Your task to perform on an android device: set the timer Image 0: 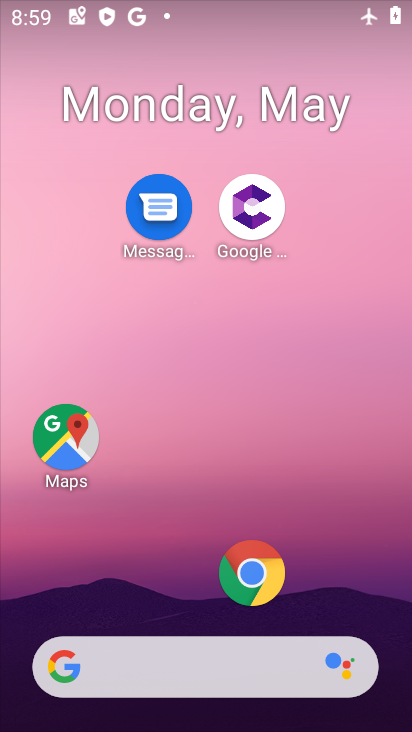
Step 0: drag from (297, 621) to (296, 204)
Your task to perform on an android device: set the timer Image 1: 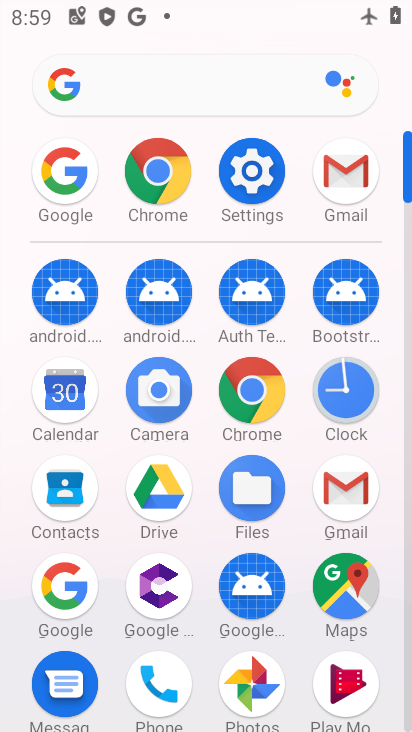
Step 1: click (335, 420)
Your task to perform on an android device: set the timer Image 2: 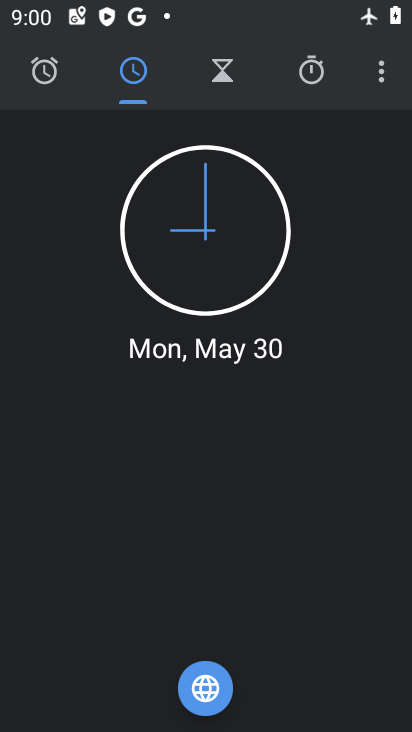
Step 2: click (302, 72)
Your task to perform on an android device: set the timer Image 3: 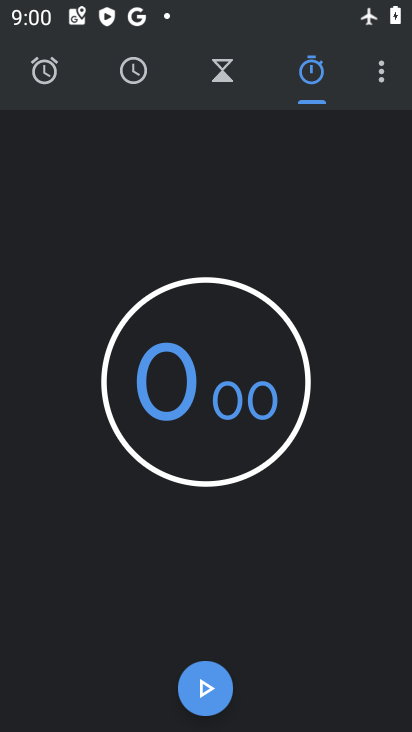
Step 3: click (222, 95)
Your task to perform on an android device: set the timer Image 4: 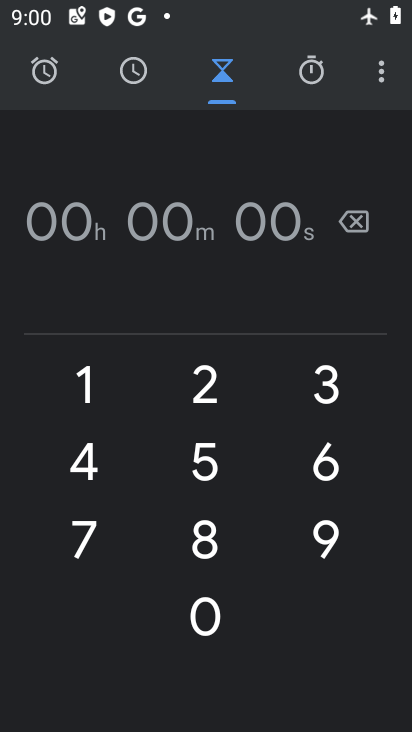
Step 4: click (215, 391)
Your task to perform on an android device: set the timer Image 5: 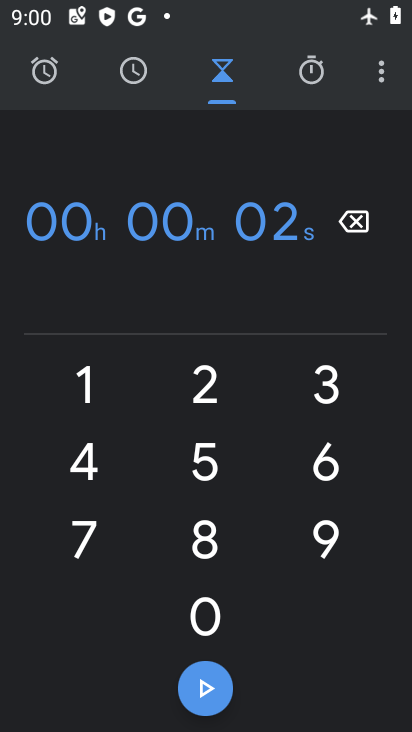
Step 5: click (215, 702)
Your task to perform on an android device: set the timer Image 6: 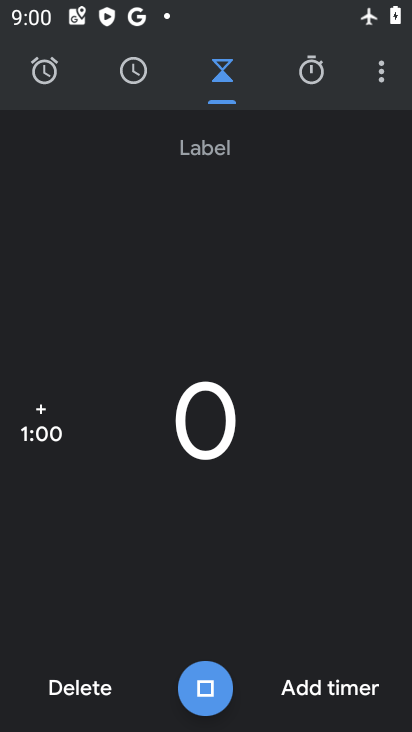
Step 6: task complete